Your task to perform on an android device: check data usage Image 0: 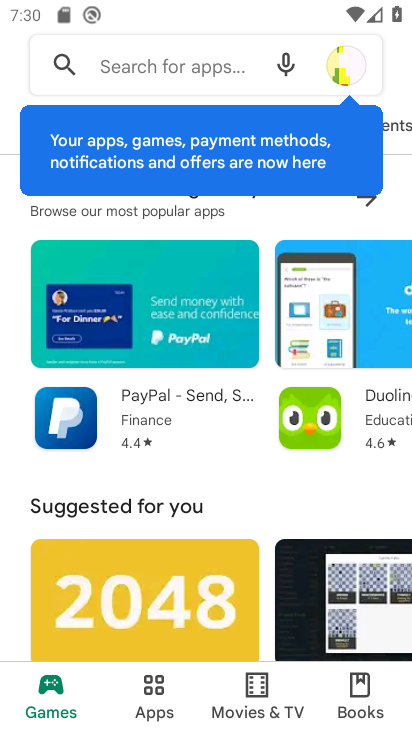
Step 0: press home button
Your task to perform on an android device: check data usage Image 1: 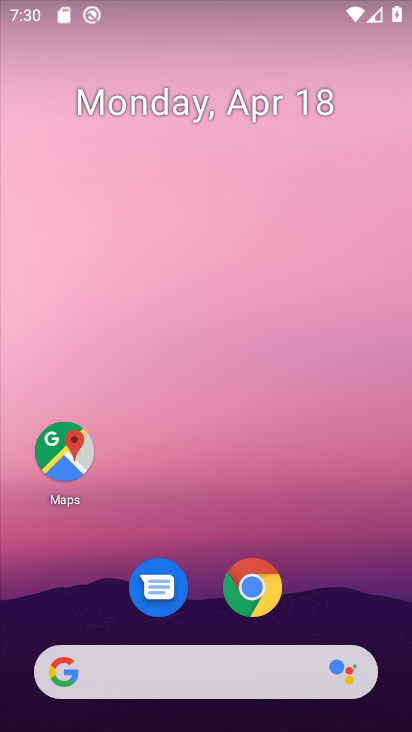
Step 1: drag from (273, 418) to (287, 494)
Your task to perform on an android device: check data usage Image 2: 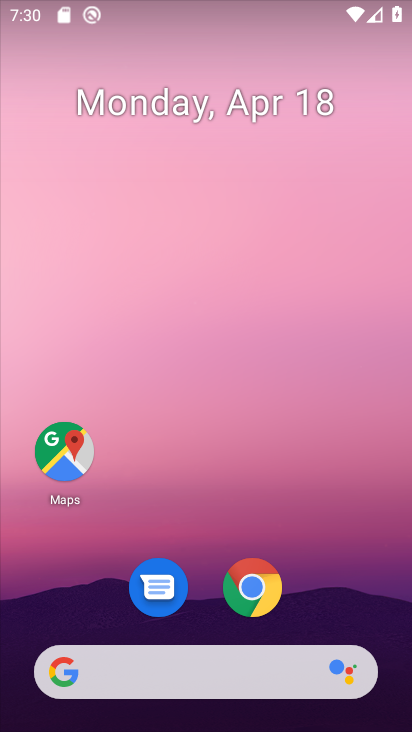
Step 2: drag from (251, 10) to (255, 571)
Your task to perform on an android device: check data usage Image 3: 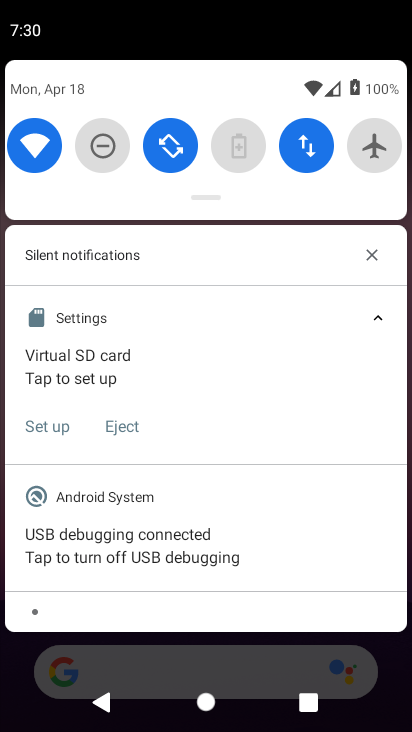
Step 3: drag from (217, 73) to (325, 617)
Your task to perform on an android device: check data usage Image 4: 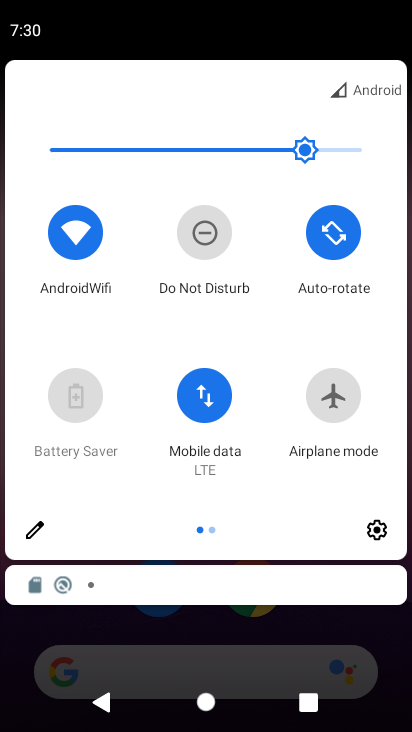
Step 4: click (380, 526)
Your task to perform on an android device: check data usage Image 5: 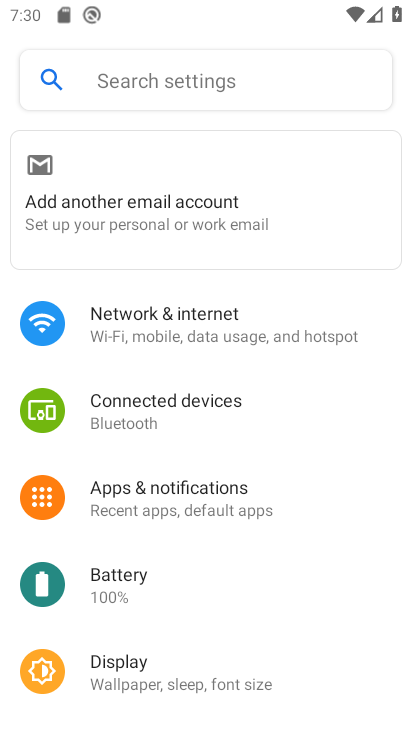
Step 5: click (273, 360)
Your task to perform on an android device: check data usage Image 6: 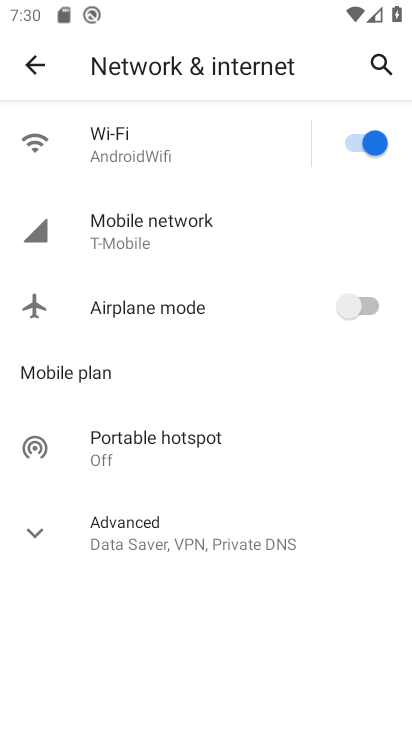
Step 6: click (148, 222)
Your task to perform on an android device: check data usage Image 7: 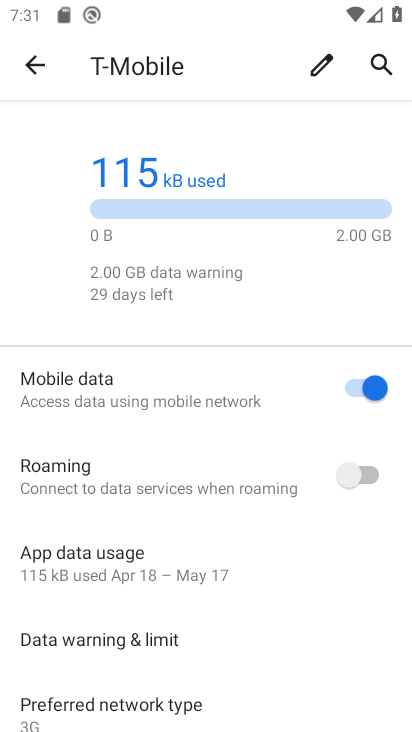
Step 7: task complete